Your task to perform on an android device: Go to sound settings Image 0: 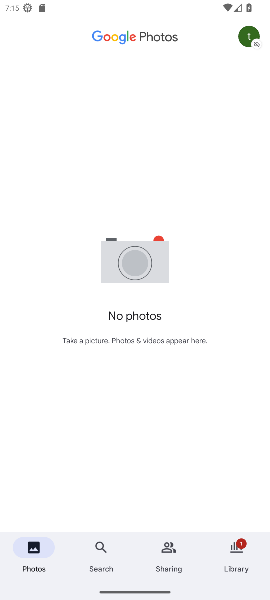
Step 0: press home button
Your task to perform on an android device: Go to sound settings Image 1: 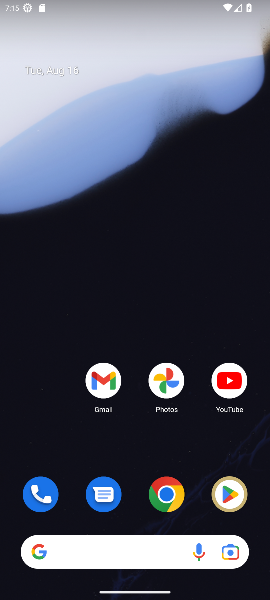
Step 1: drag from (76, 429) to (88, 204)
Your task to perform on an android device: Go to sound settings Image 2: 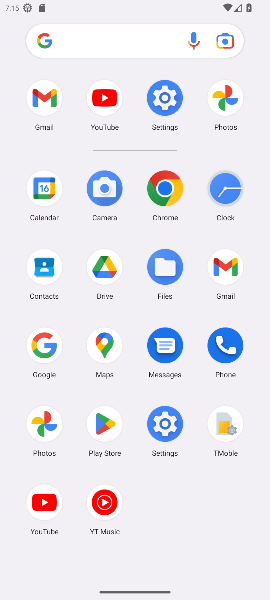
Step 2: click (167, 427)
Your task to perform on an android device: Go to sound settings Image 3: 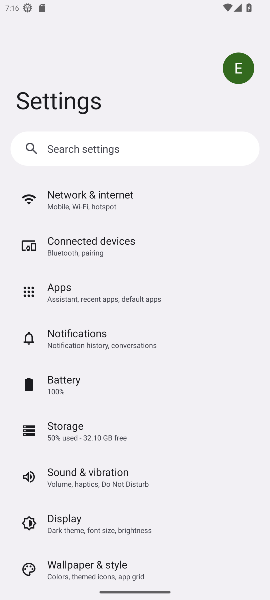
Step 3: click (81, 467)
Your task to perform on an android device: Go to sound settings Image 4: 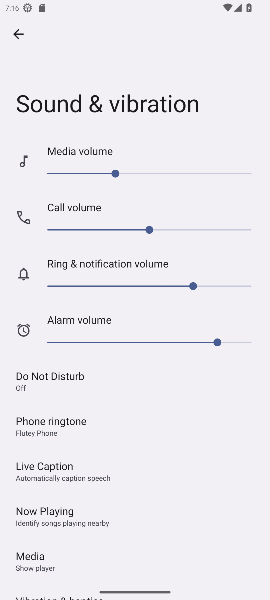
Step 4: task complete